Your task to perform on an android device: Open Maps and search for coffee Image 0: 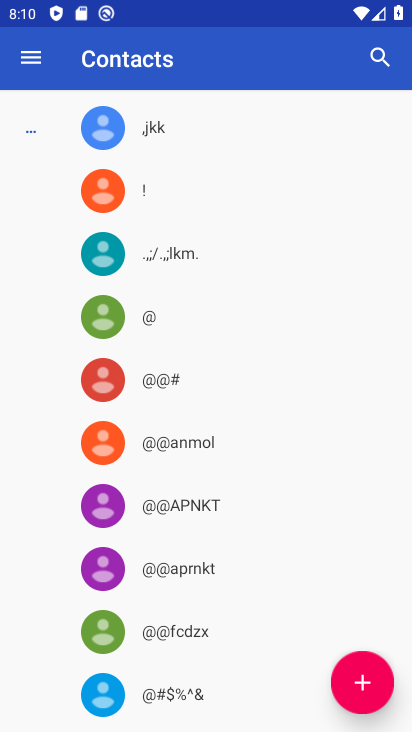
Step 0: press home button
Your task to perform on an android device: Open Maps and search for coffee Image 1: 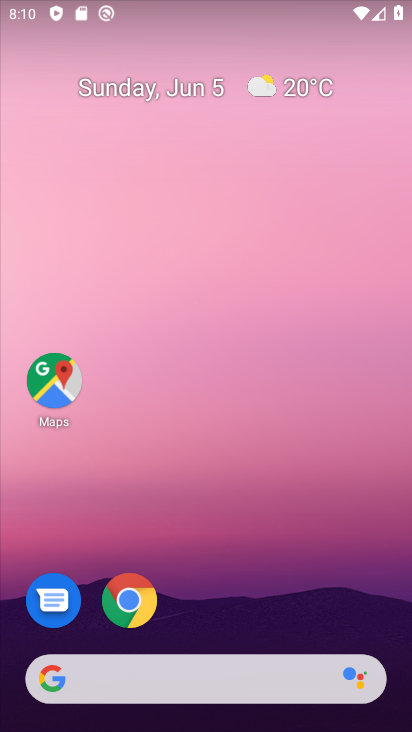
Step 1: click (59, 388)
Your task to perform on an android device: Open Maps and search for coffee Image 2: 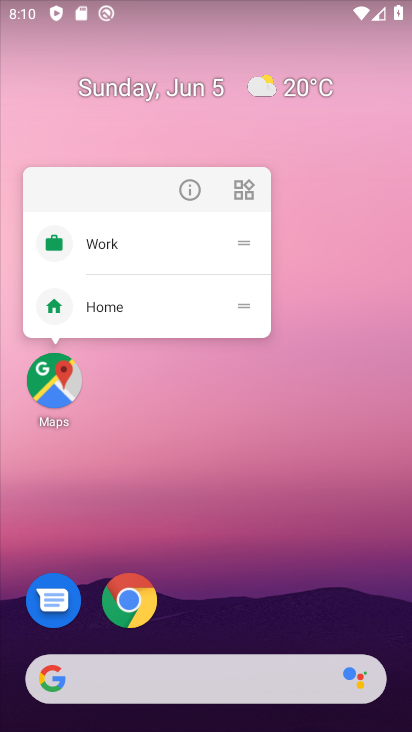
Step 2: click (62, 384)
Your task to perform on an android device: Open Maps and search for coffee Image 3: 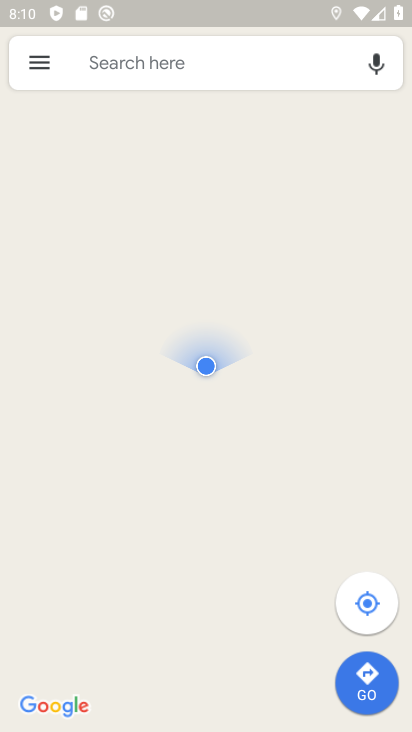
Step 3: click (173, 72)
Your task to perform on an android device: Open Maps and search for coffee Image 4: 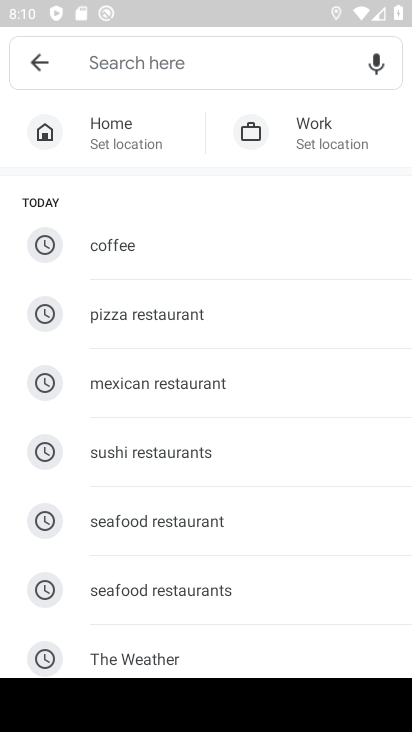
Step 4: type "Coffee"
Your task to perform on an android device: Open Maps and search for coffee Image 5: 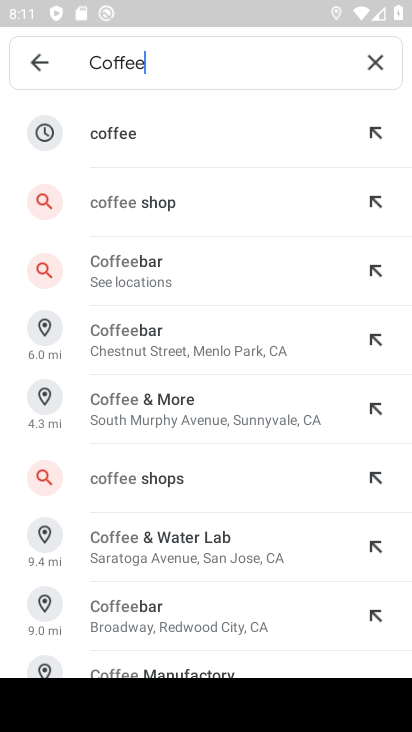
Step 5: click (168, 119)
Your task to perform on an android device: Open Maps and search for coffee Image 6: 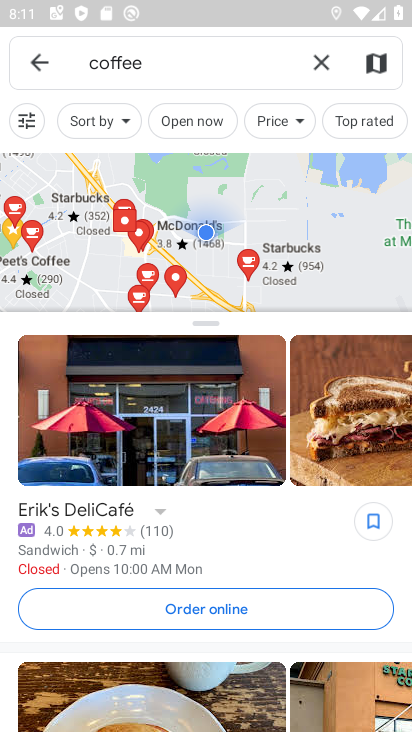
Step 6: task complete